Your task to perform on an android device: refresh tabs in the chrome app Image 0: 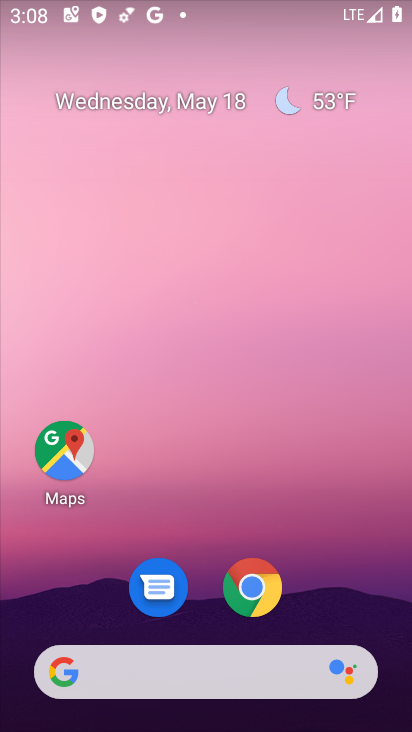
Step 0: drag from (275, 608) to (281, 91)
Your task to perform on an android device: refresh tabs in the chrome app Image 1: 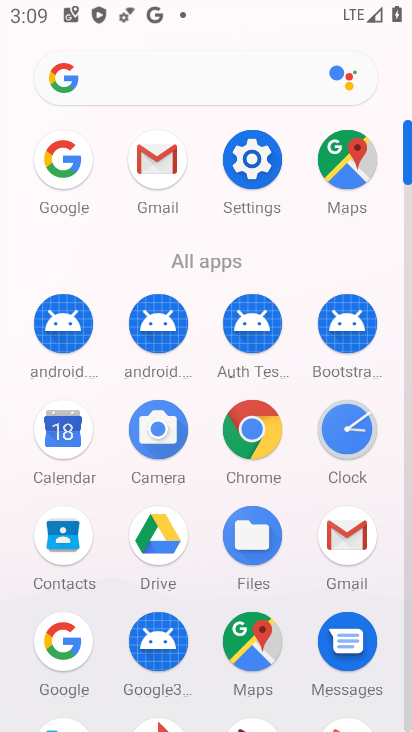
Step 1: click (253, 436)
Your task to perform on an android device: refresh tabs in the chrome app Image 2: 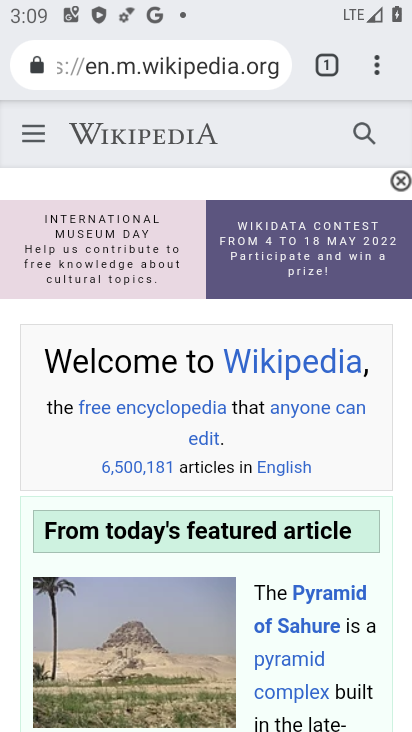
Step 2: click (381, 63)
Your task to perform on an android device: refresh tabs in the chrome app Image 3: 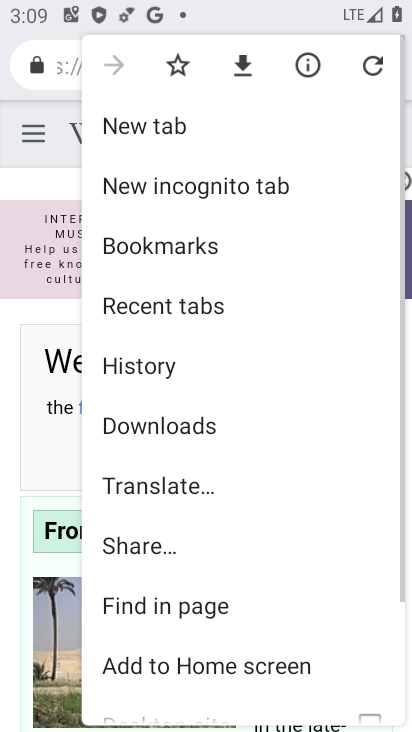
Step 3: click (376, 66)
Your task to perform on an android device: refresh tabs in the chrome app Image 4: 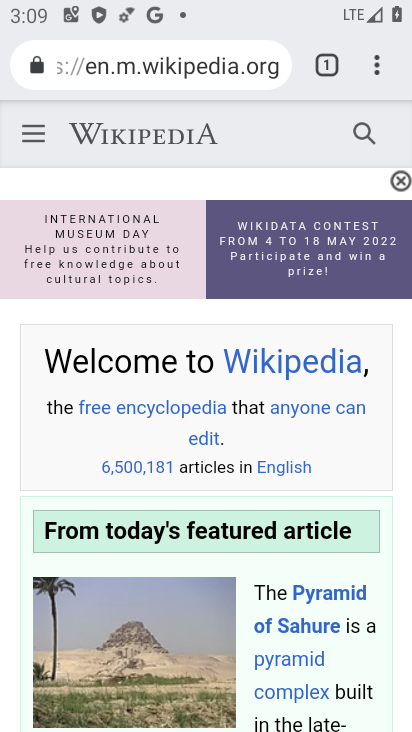
Step 4: task complete